Your task to perform on an android device: Go to network settings Image 0: 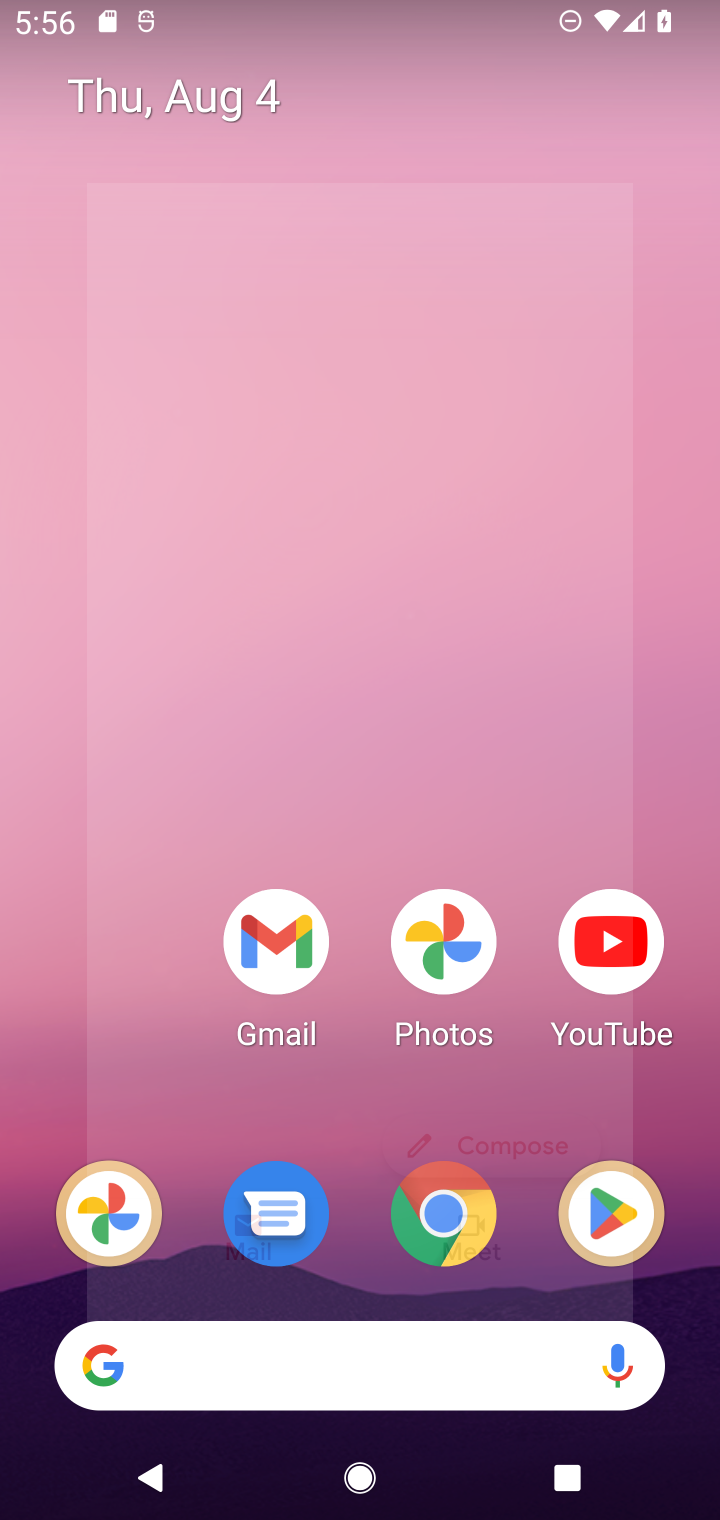
Step 0: press home button
Your task to perform on an android device: Go to network settings Image 1: 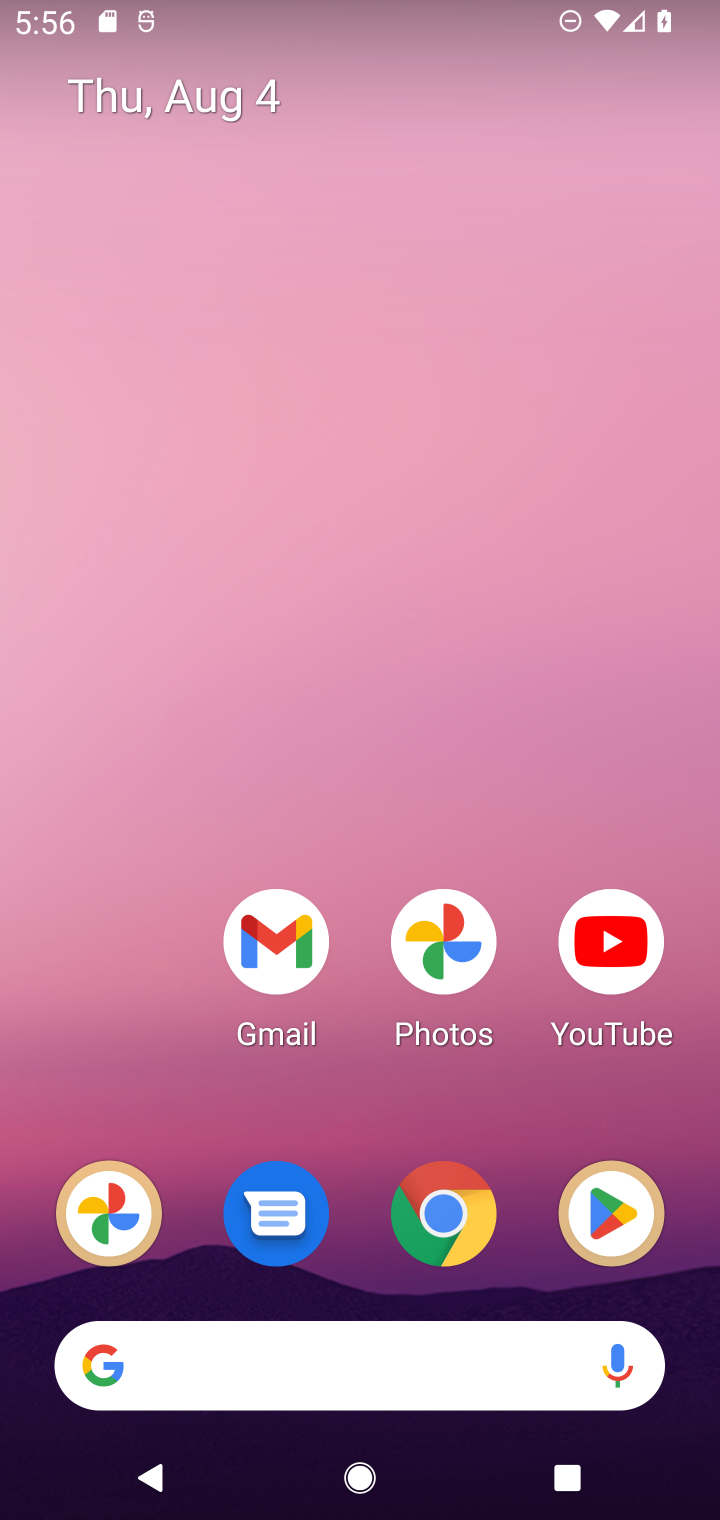
Step 1: drag from (197, 1162) to (277, 220)
Your task to perform on an android device: Go to network settings Image 2: 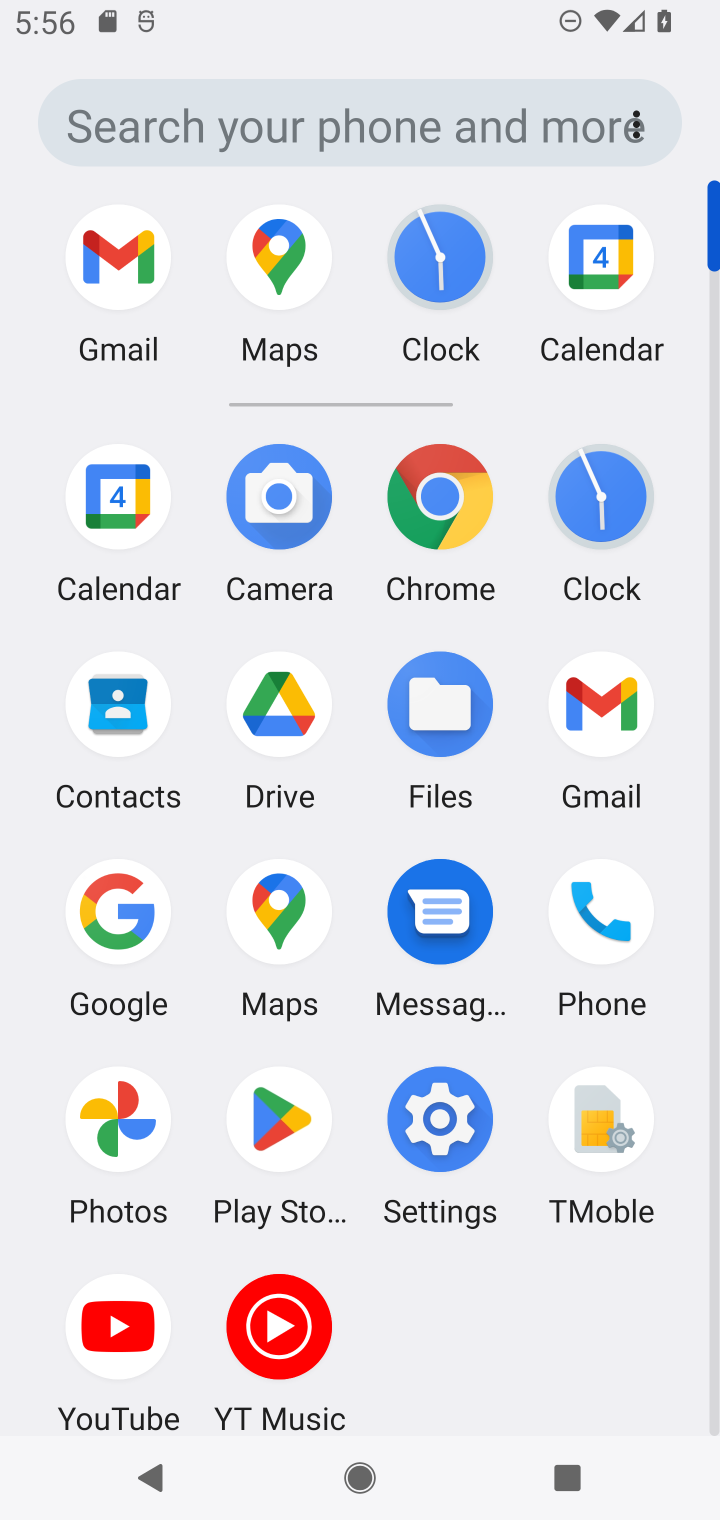
Step 2: click (446, 1143)
Your task to perform on an android device: Go to network settings Image 3: 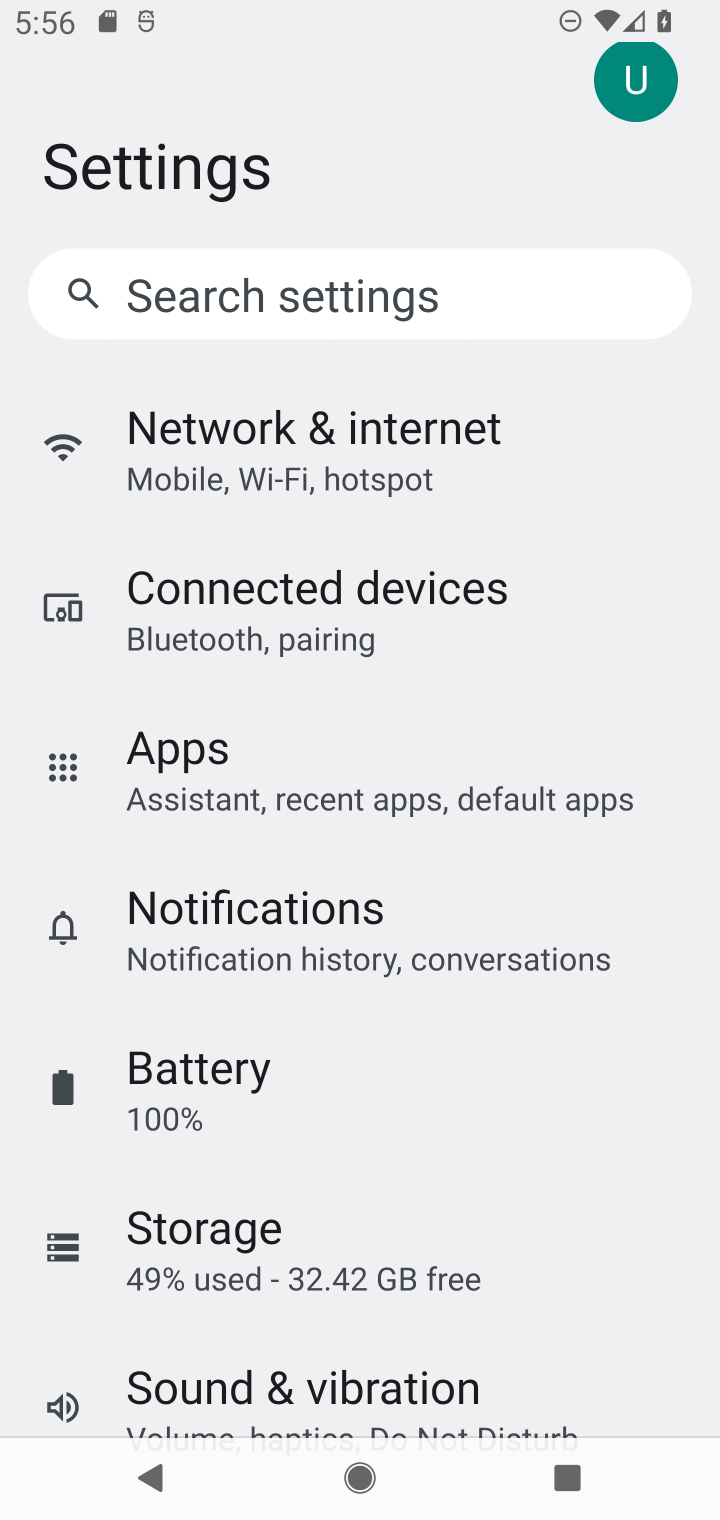
Step 3: drag from (603, 1160) to (647, 888)
Your task to perform on an android device: Go to network settings Image 4: 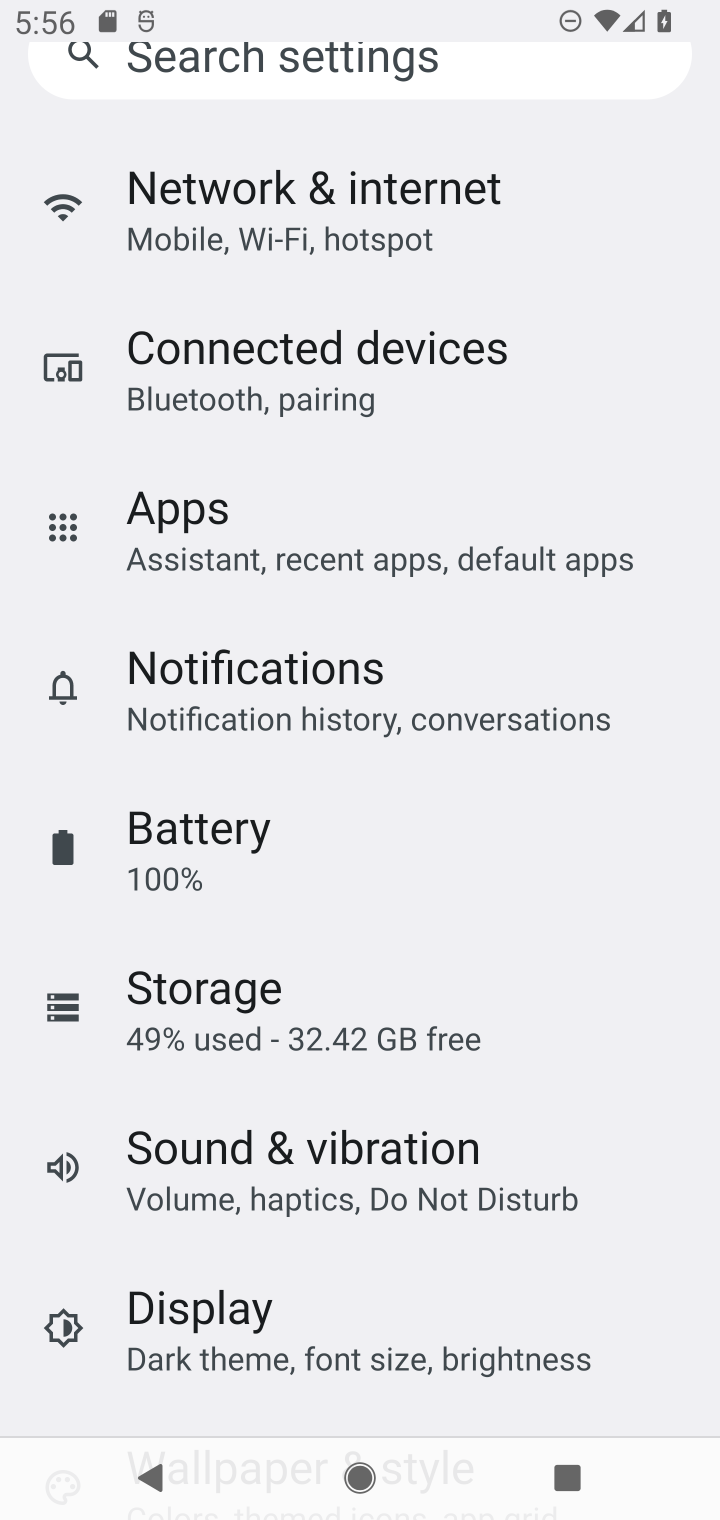
Step 4: drag from (617, 1312) to (617, 1038)
Your task to perform on an android device: Go to network settings Image 5: 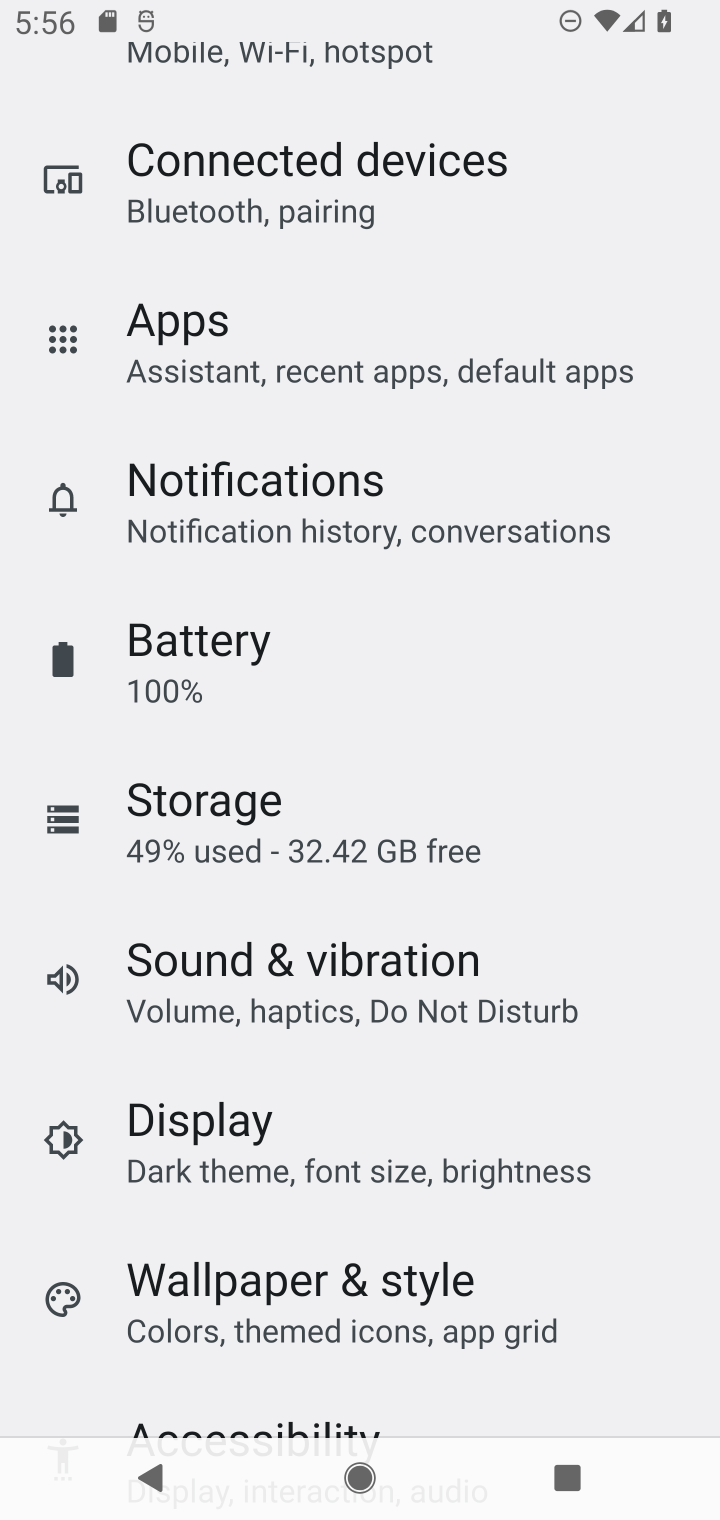
Step 5: drag from (598, 1256) to (623, 903)
Your task to perform on an android device: Go to network settings Image 6: 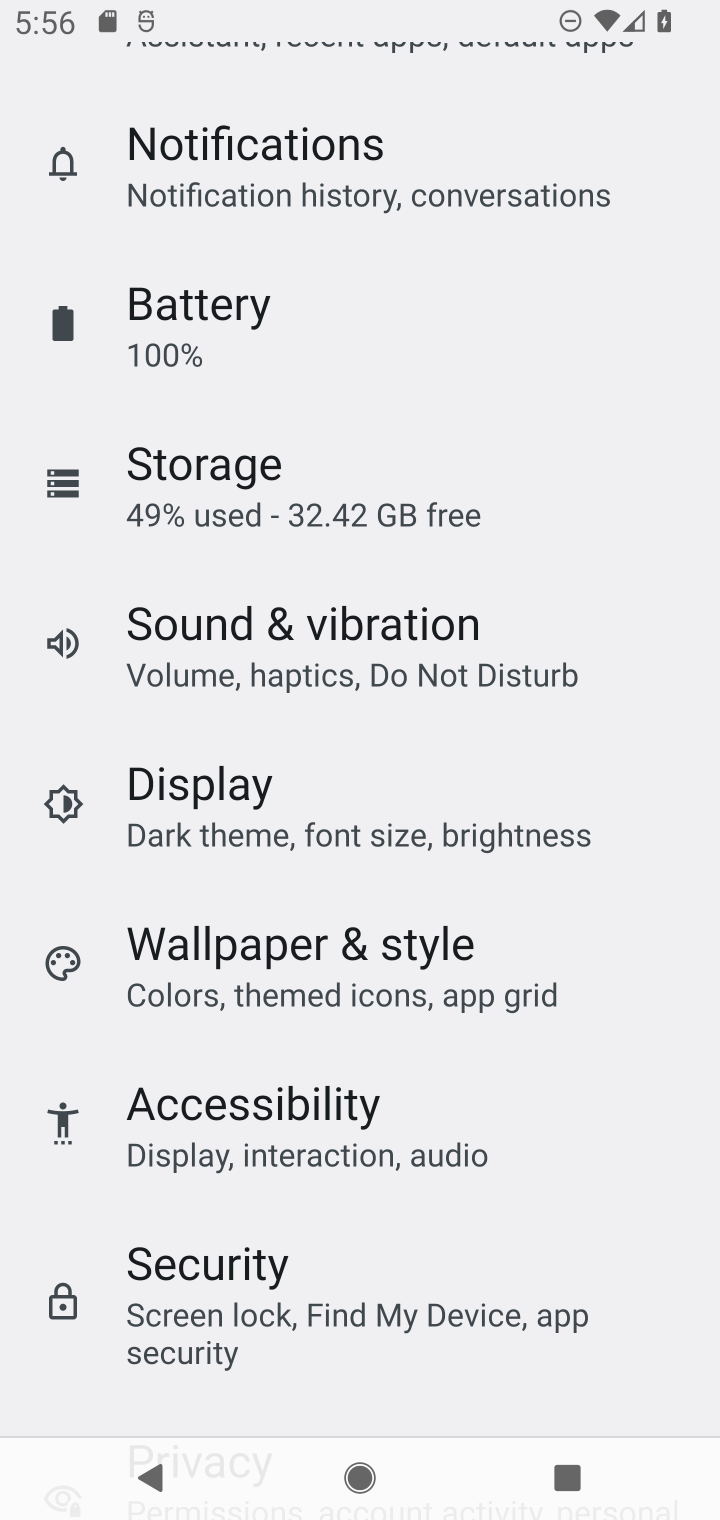
Step 6: drag from (630, 1324) to (647, 946)
Your task to perform on an android device: Go to network settings Image 7: 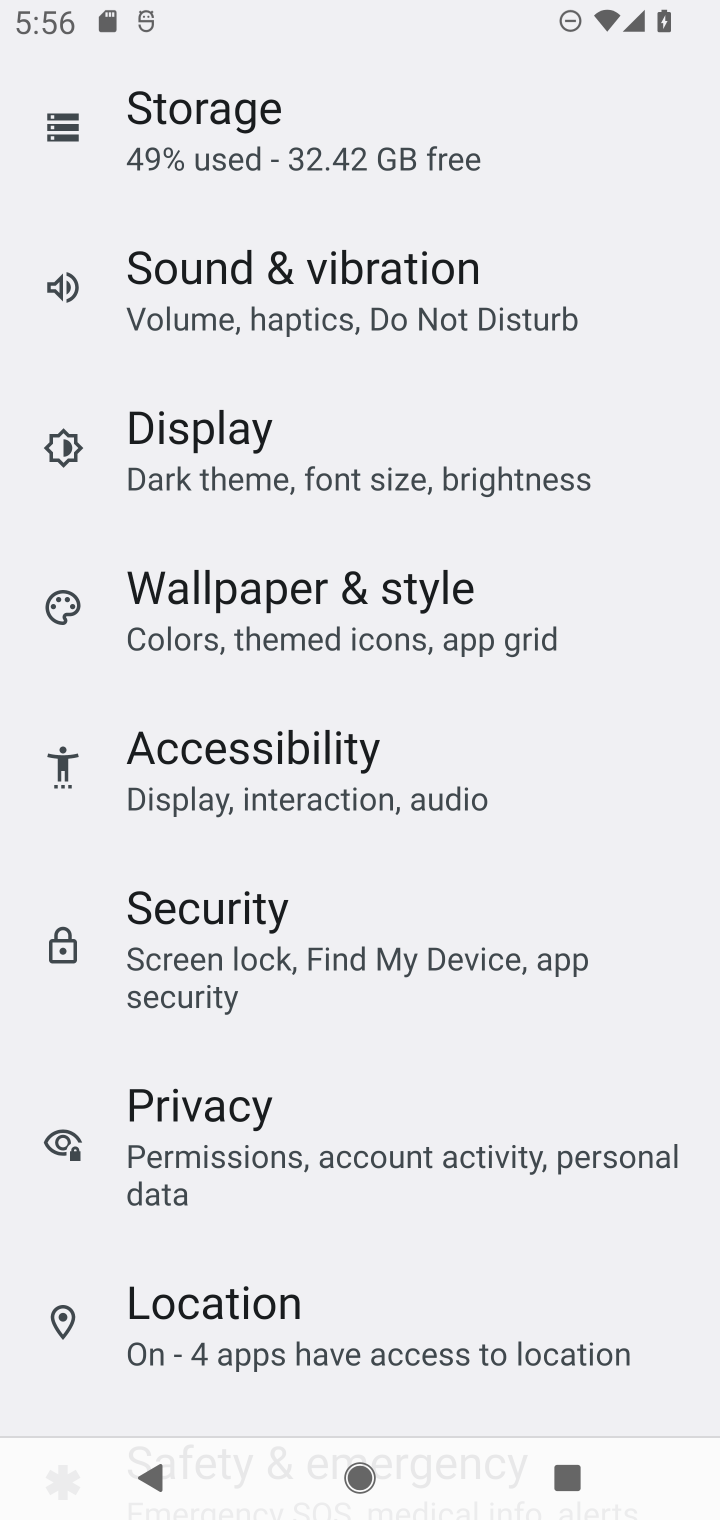
Step 7: drag from (634, 1277) to (641, 933)
Your task to perform on an android device: Go to network settings Image 8: 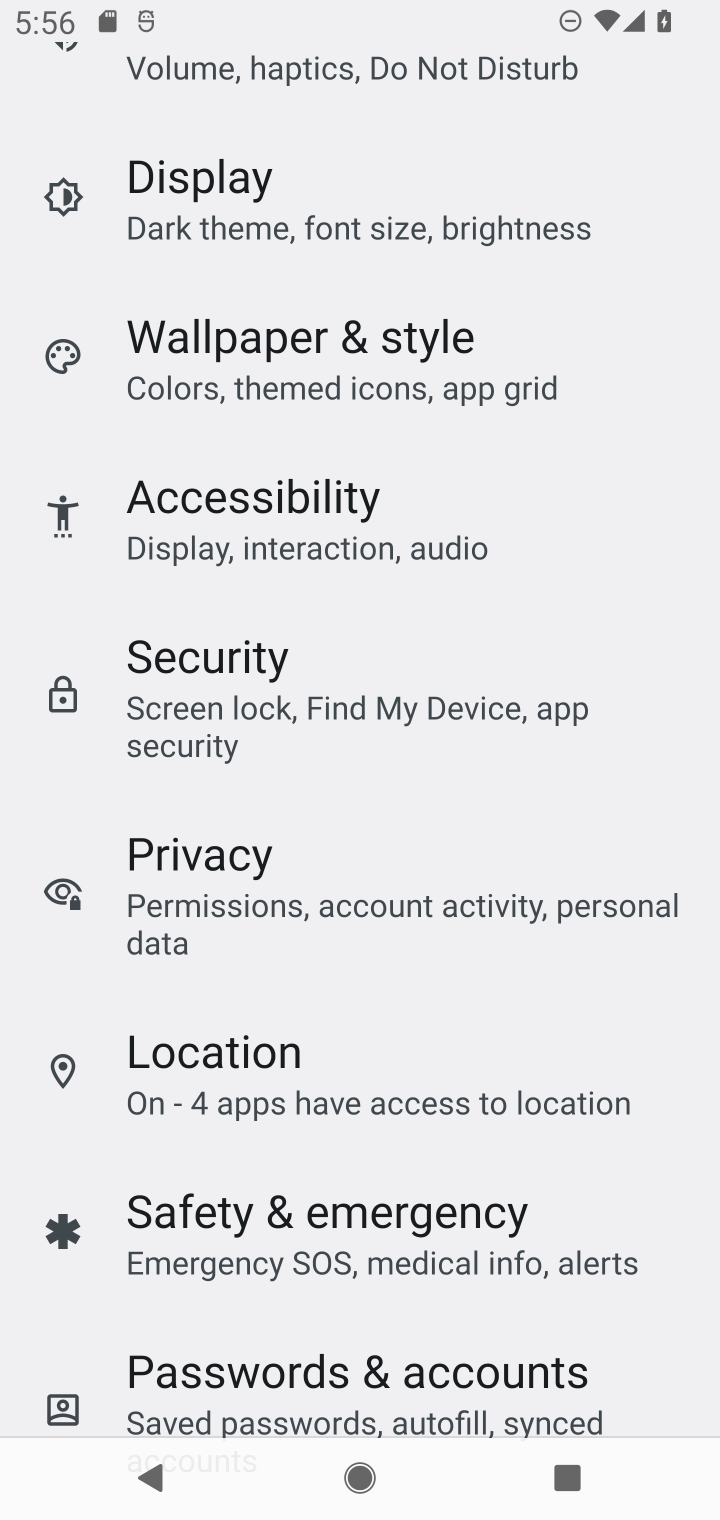
Step 8: drag from (609, 1345) to (640, 1014)
Your task to perform on an android device: Go to network settings Image 9: 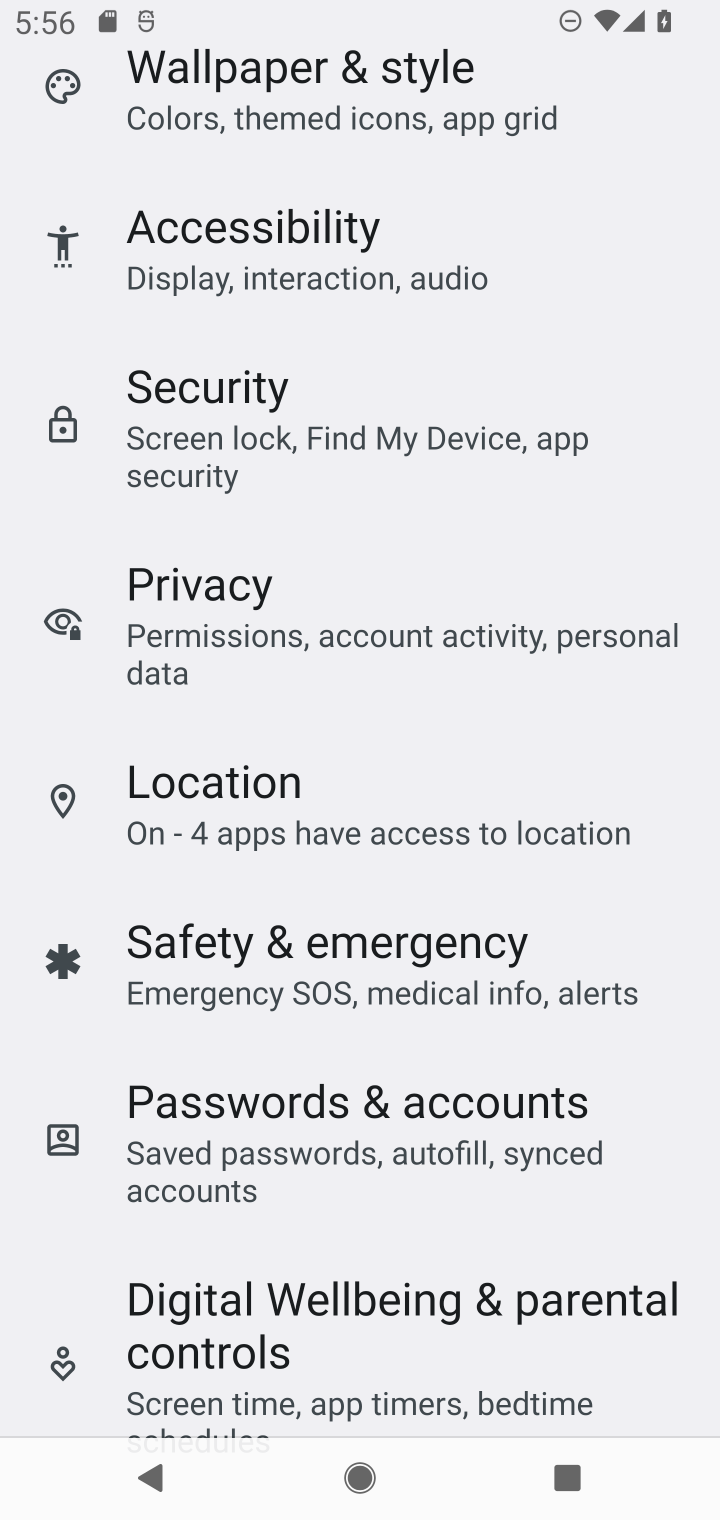
Step 9: drag from (604, 1373) to (644, 1087)
Your task to perform on an android device: Go to network settings Image 10: 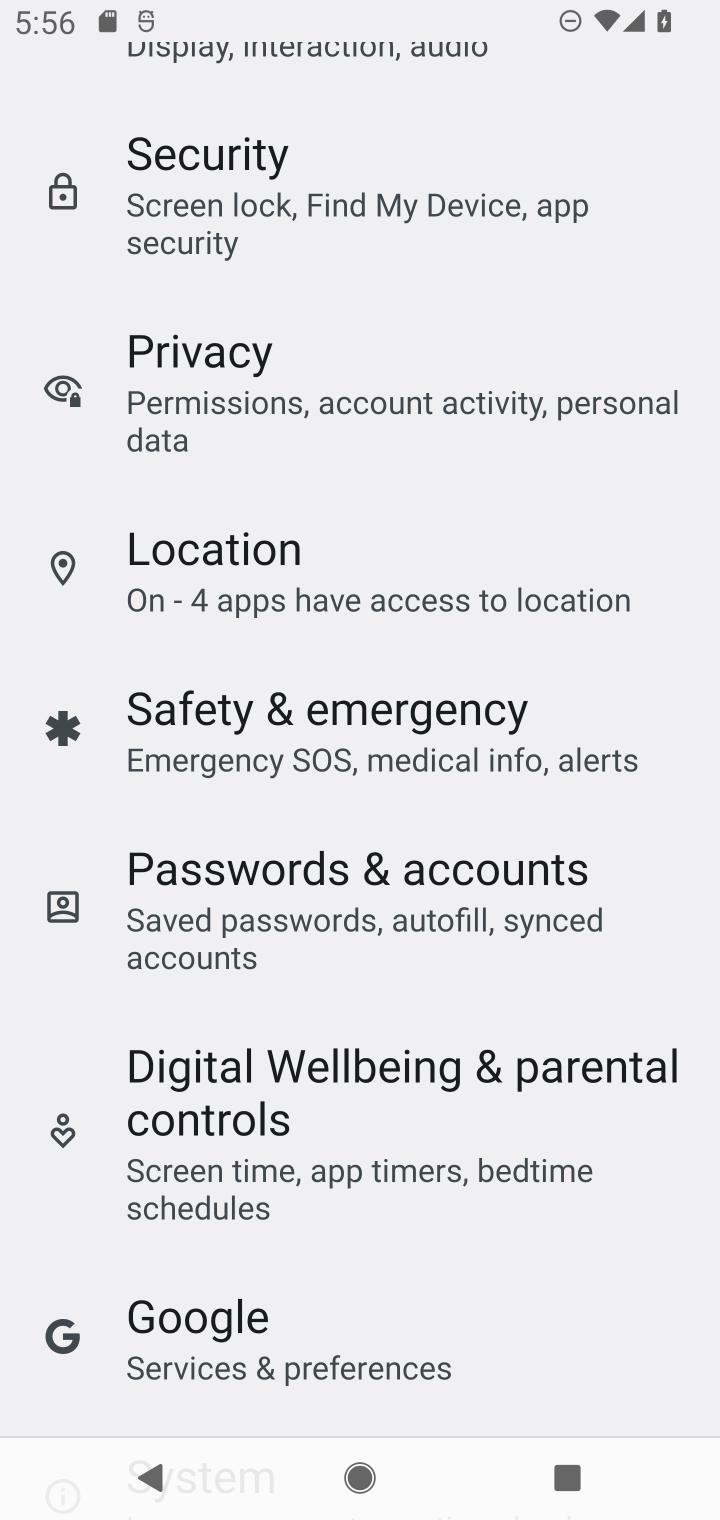
Step 10: drag from (614, 1333) to (625, 1043)
Your task to perform on an android device: Go to network settings Image 11: 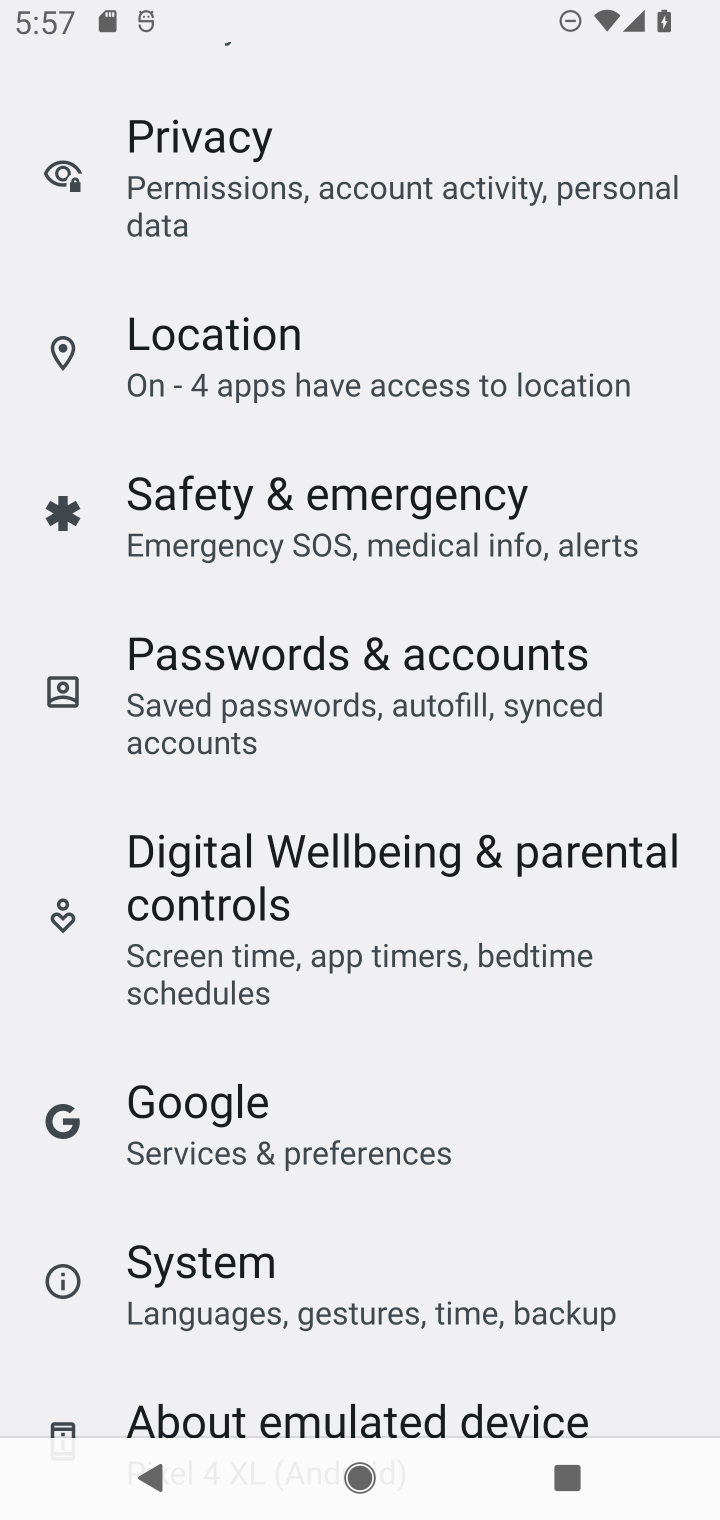
Step 11: drag from (646, 1370) to (649, 1105)
Your task to perform on an android device: Go to network settings Image 12: 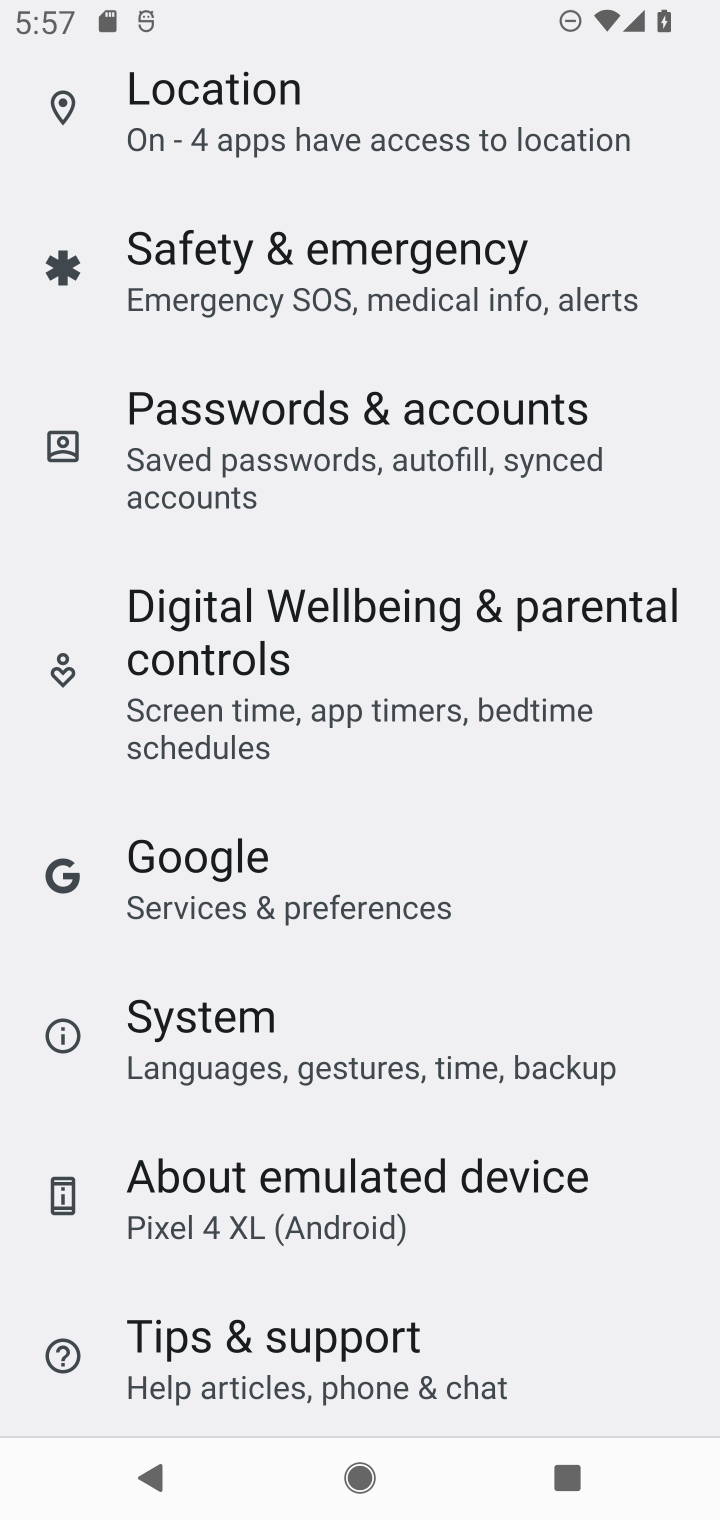
Step 12: drag from (628, 743) to (632, 1076)
Your task to perform on an android device: Go to network settings Image 13: 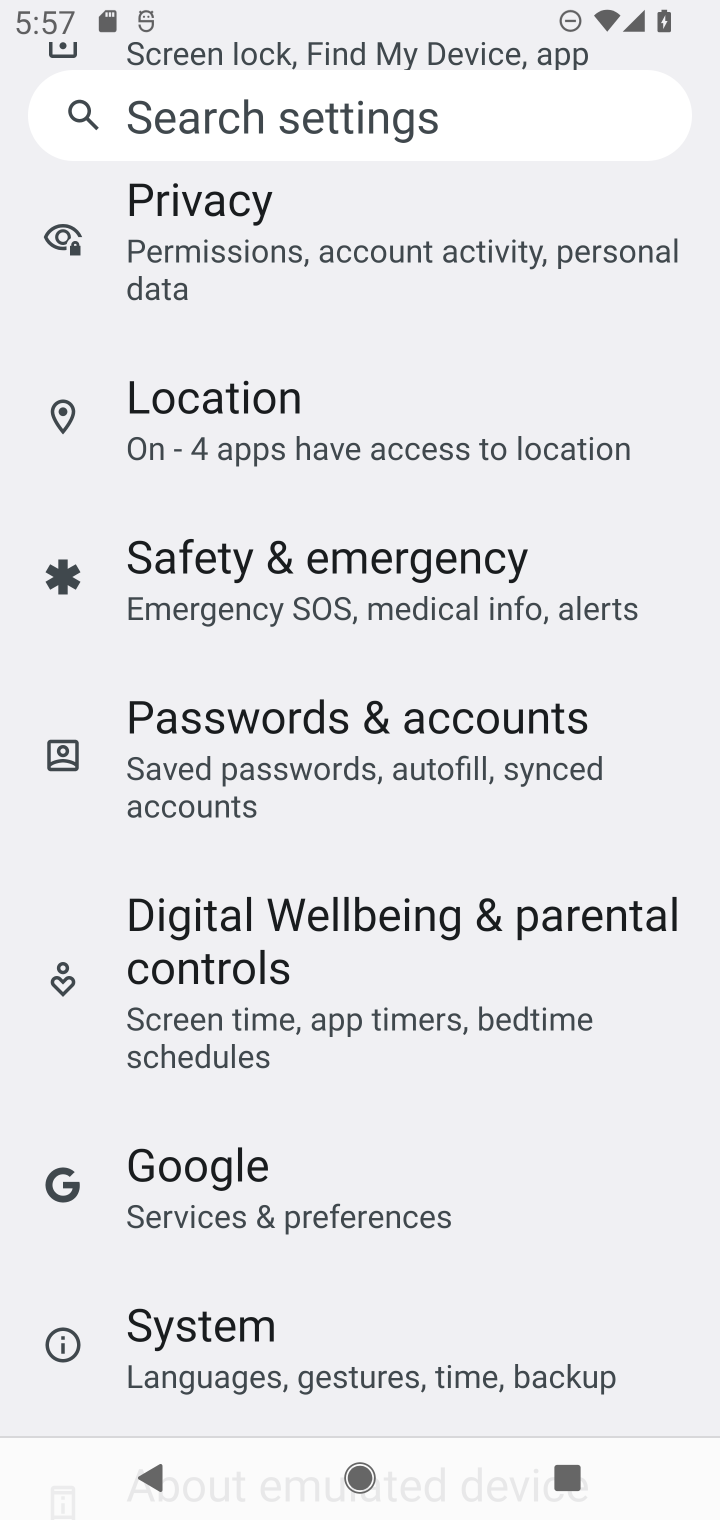
Step 13: drag from (648, 506) to (655, 870)
Your task to perform on an android device: Go to network settings Image 14: 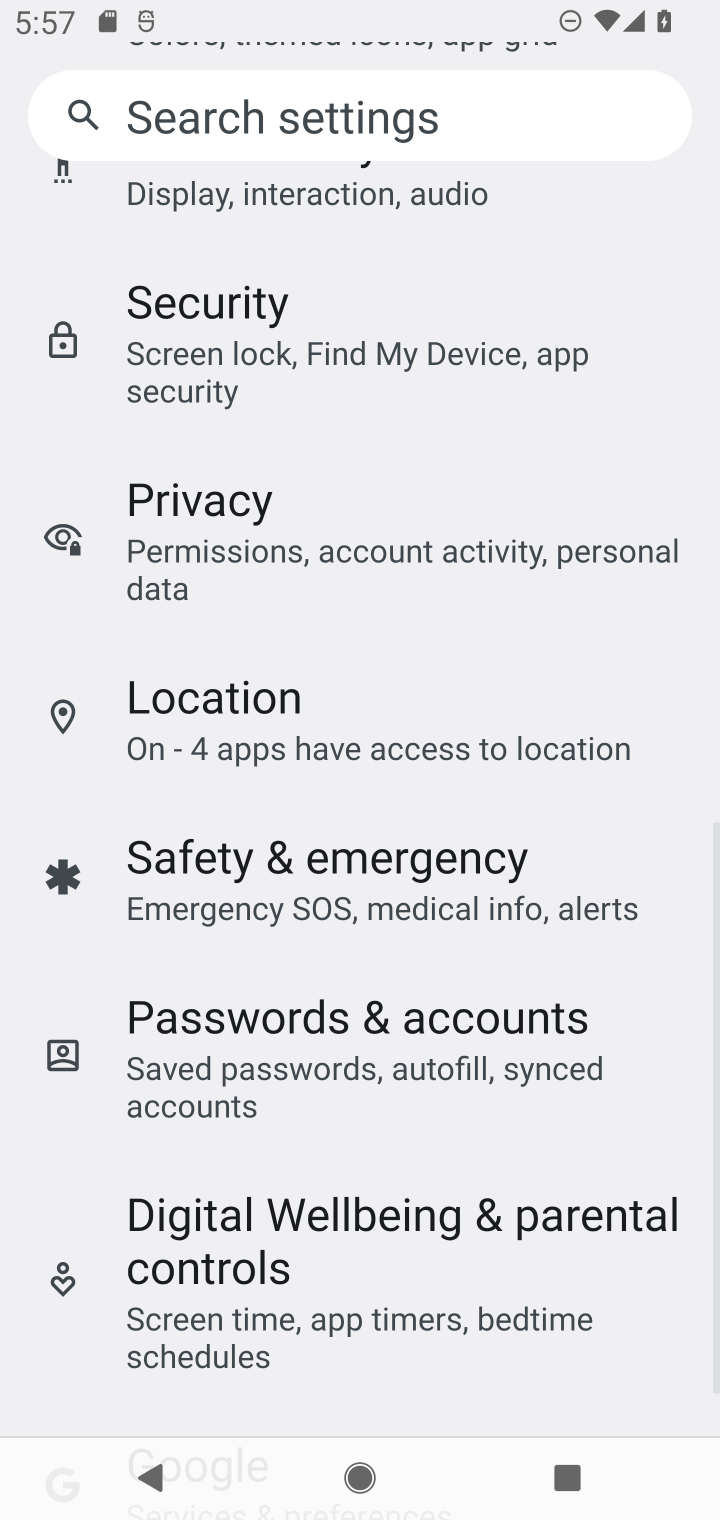
Step 14: drag from (648, 457) to (622, 830)
Your task to perform on an android device: Go to network settings Image 15: 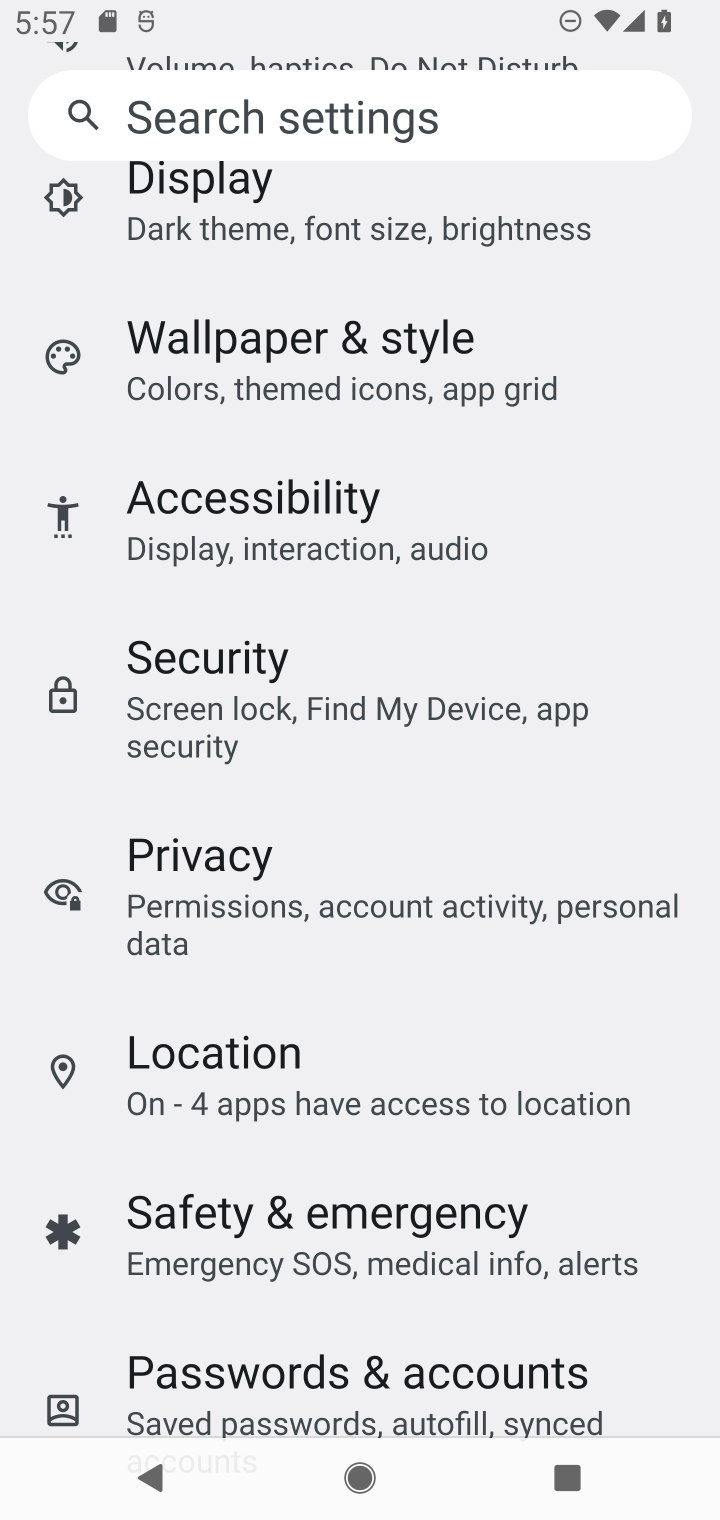
Step 15: drag from (624, 422) to (626, 817)
Your task to perform on an android device: Go to network settings Image 16: 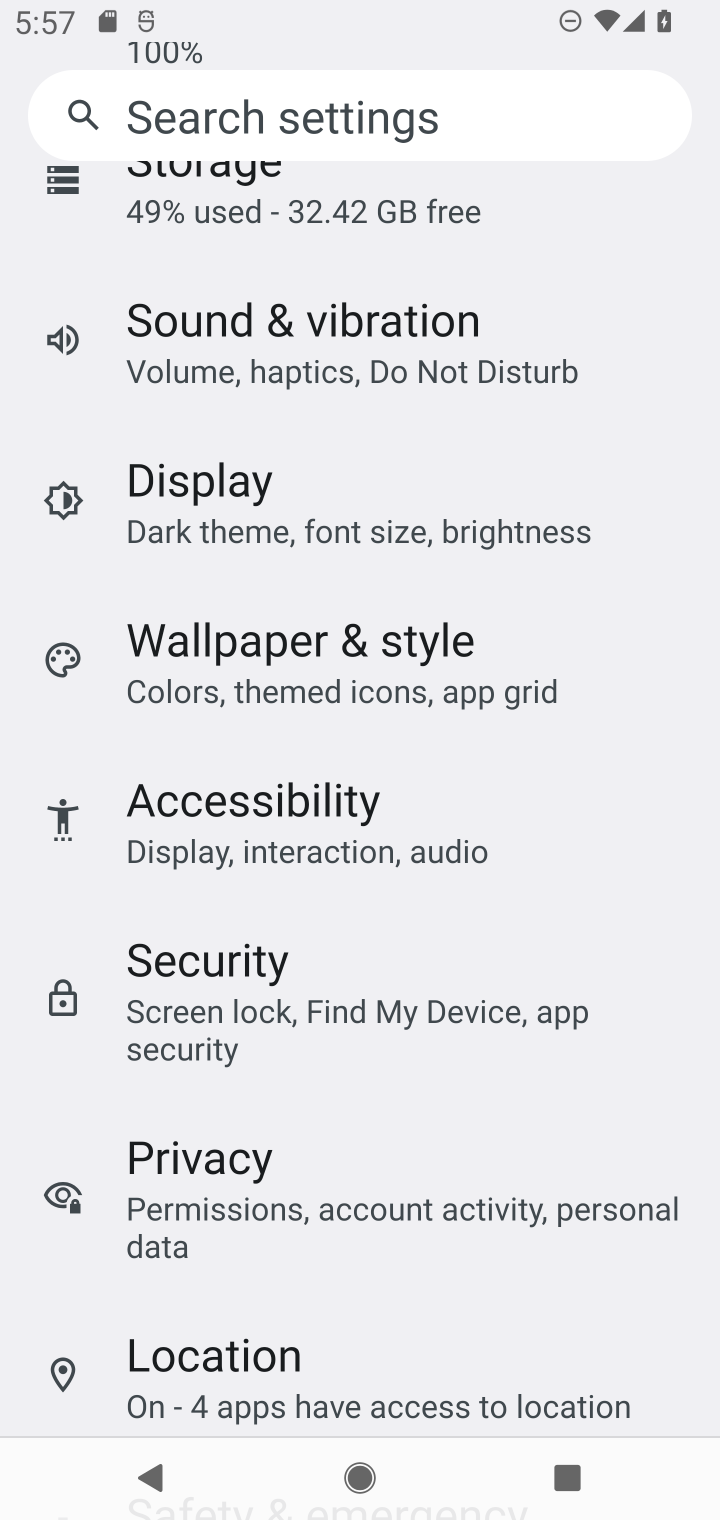
Step 16: drag from (622, 449) to (628, 936)
Your task to perform on an android device: Go to network settings Image 17: 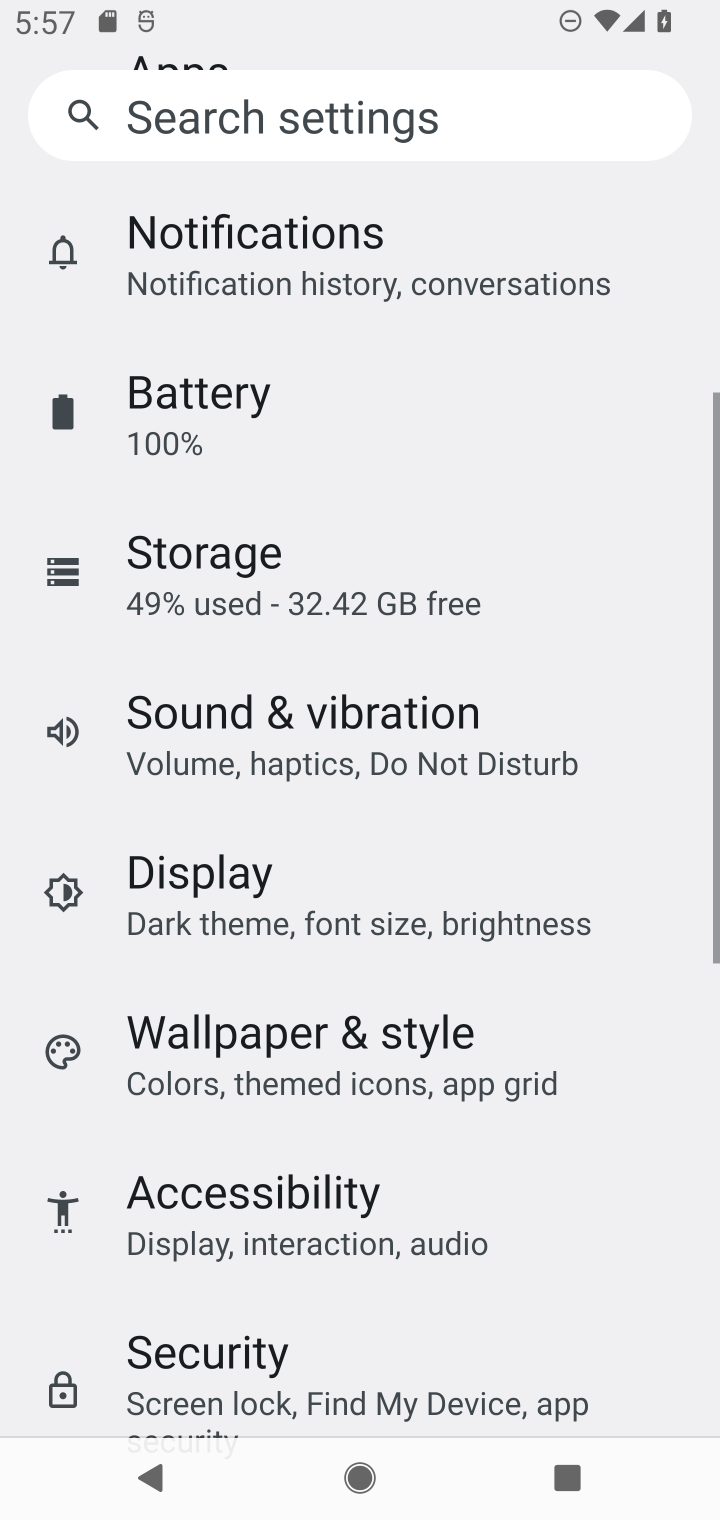
Step 17: drag from (644, 301) to (628, 778)
Your task to perform on an android device: Go to network settings Image 18: 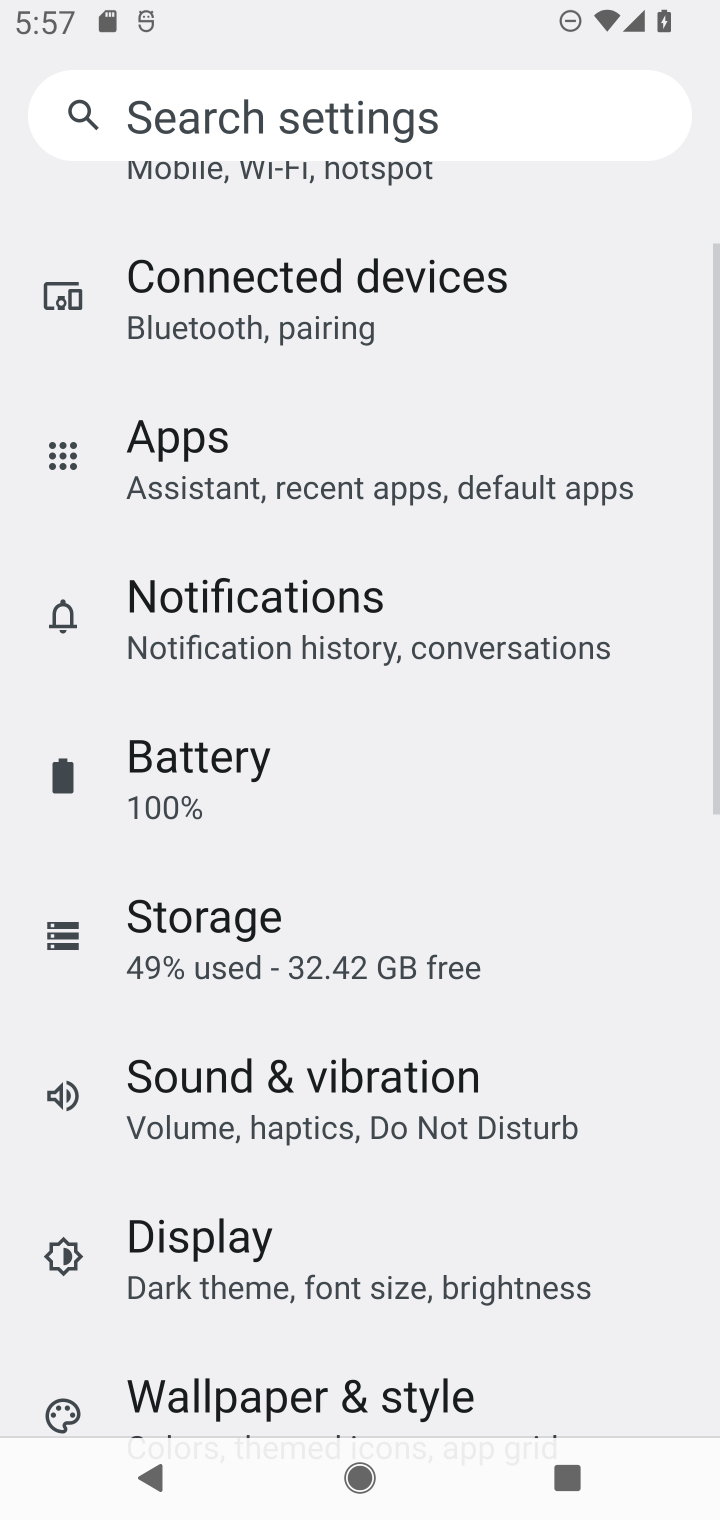
Step 18: drag from (620, 259) to (609, 645)
Your task to perform on an android device: Go to network settings Image 19: 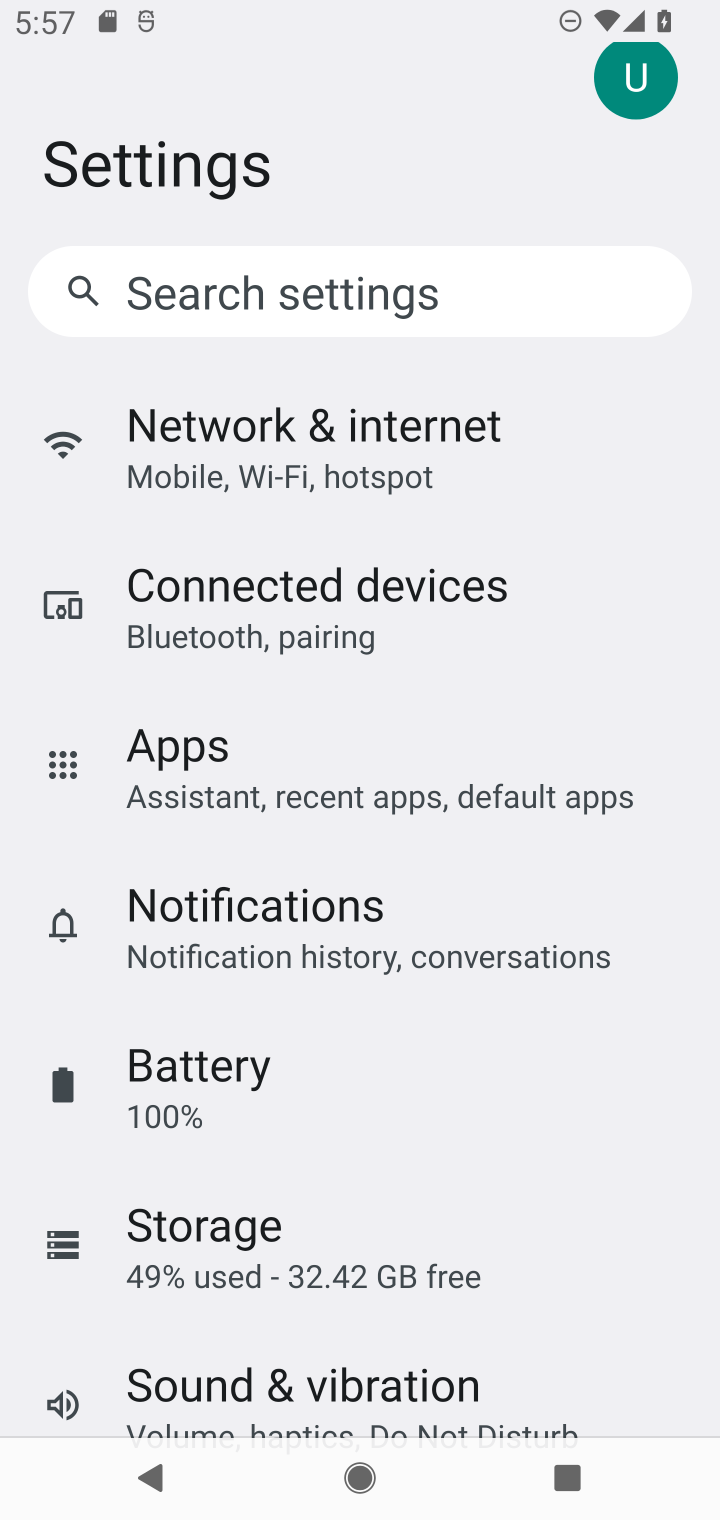
Step 19: click (484, 451)
Your task to perform on an android device: Go to network settings Image 20: 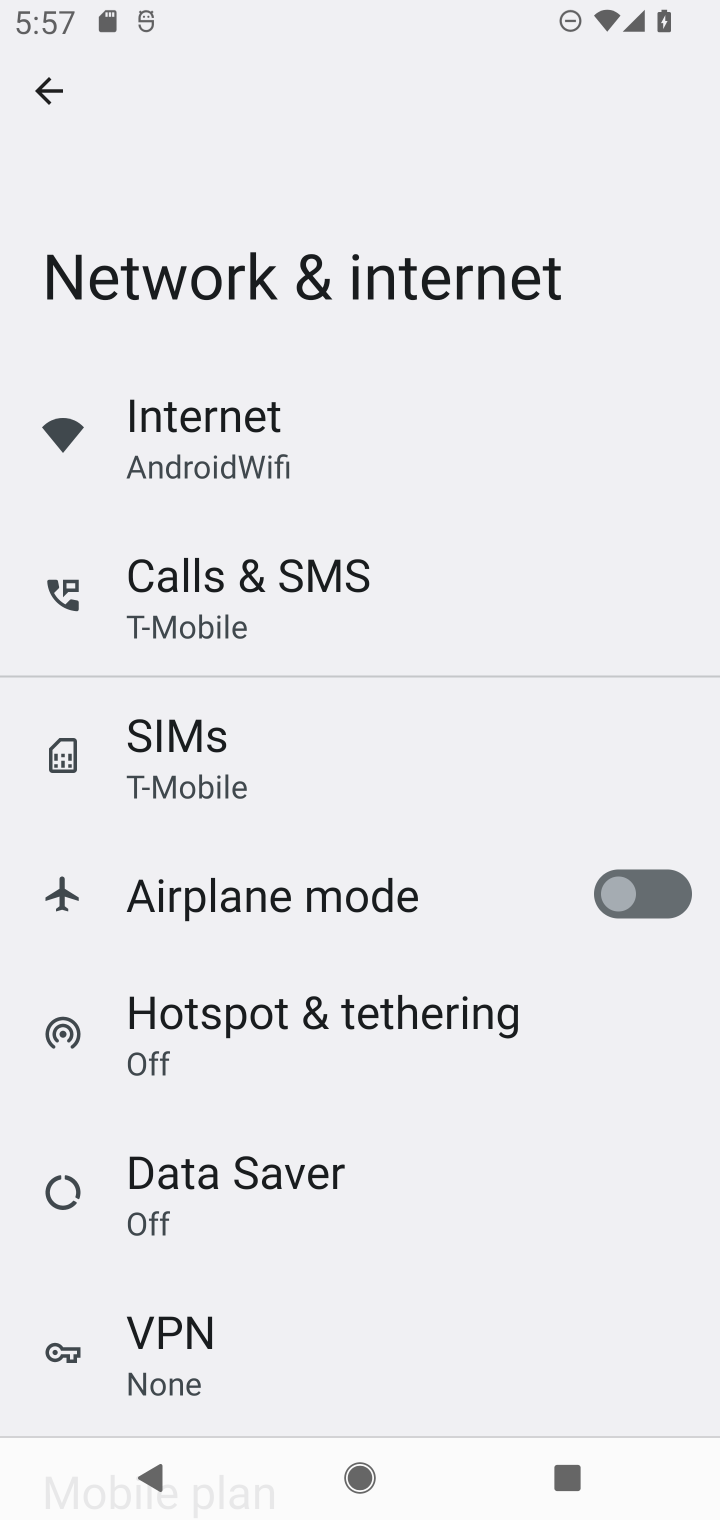
Step 20: task complete